Your task to perform on an android device: Go to Google Image 0: 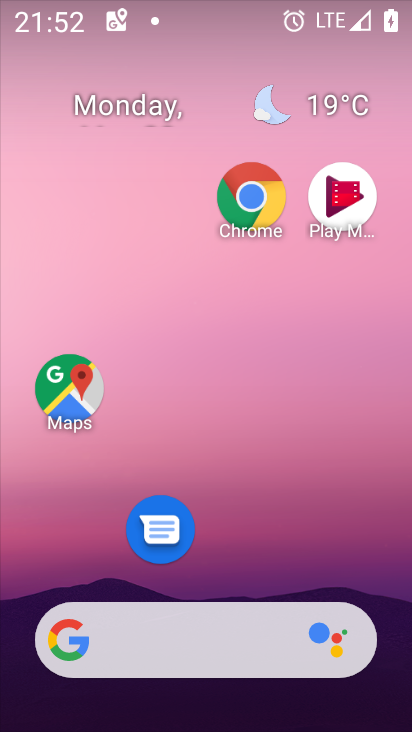
Step 0: click (120, 630)
Your task to perform on an android device: Go to Google Image 1: 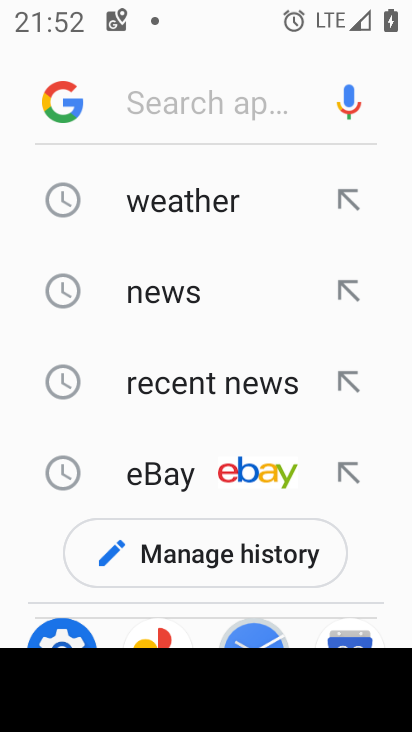
Step 1: task complete